Your task to perform on an android device: toggle javascript in the chrome app Image 0: 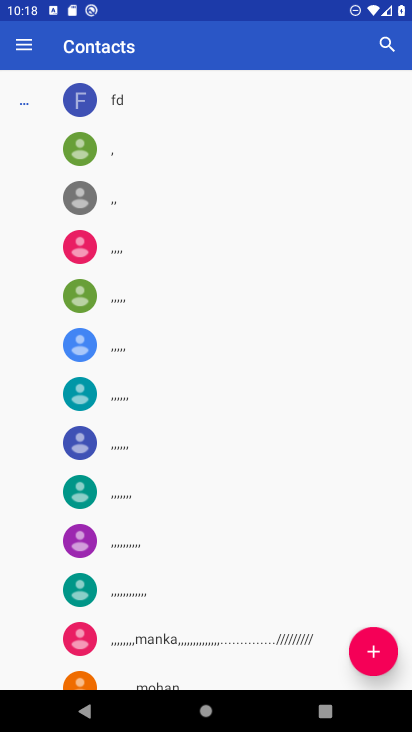
Step 0: press home button
Your task to perform on an android device: toggle javascript in the chrome app Image 1: 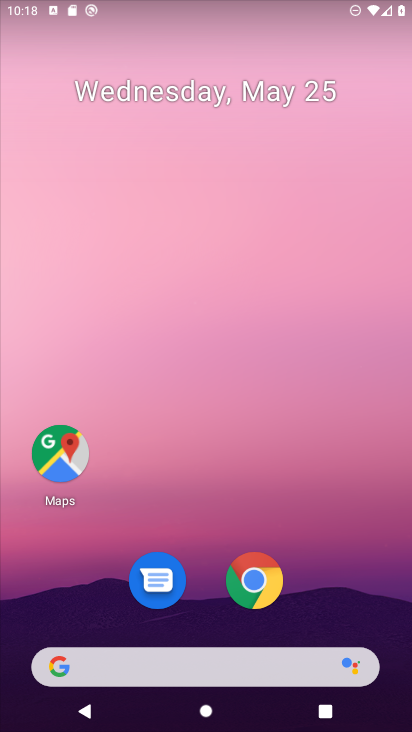
Step 1: click (251, 574)
Your task to perform on an android device: toggle javascript in the chrome app Image 2: 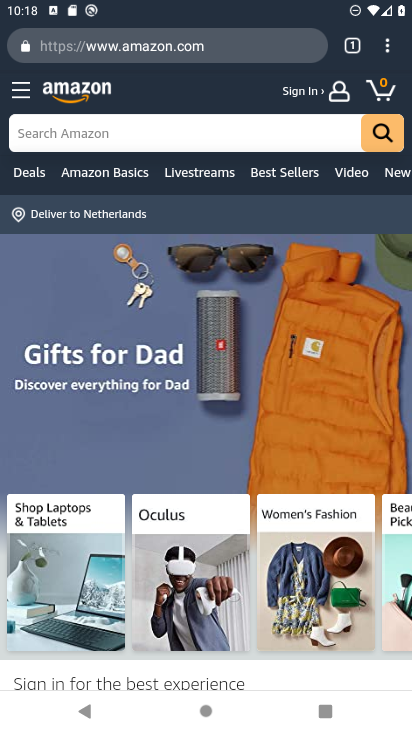
Step 2: click (386, 41)
Your task to perform on an android device: toggle javascript in the chrome app Image 3: 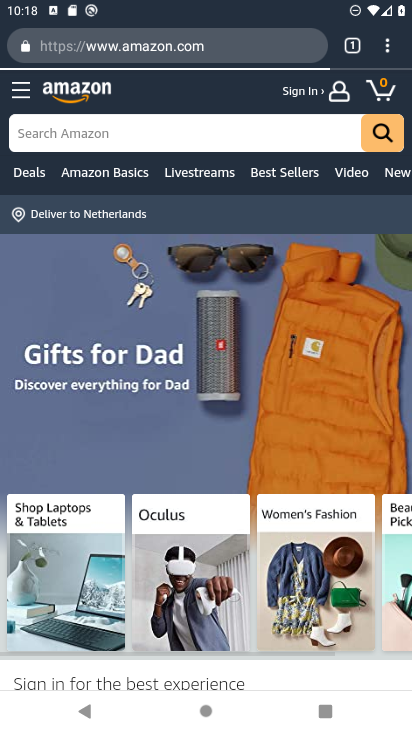
Step 3: click (380, 54)
Your task to perform on an android device: toggle javascript in the chrome app Image 4: 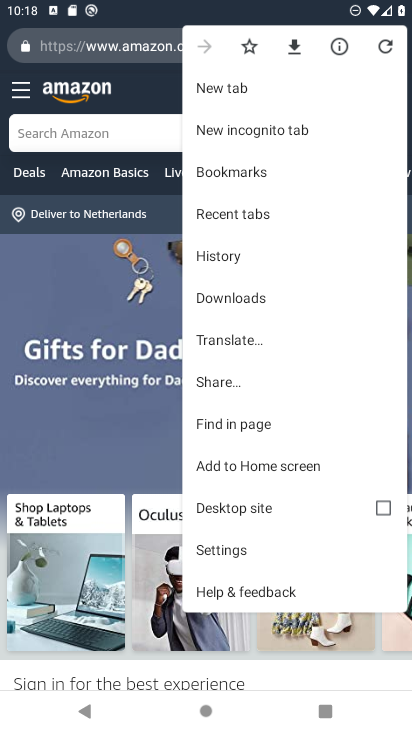
Step 4: click (237, 547)
Your task to perform on an android device: toggle javascript in the chrome app Image 5: 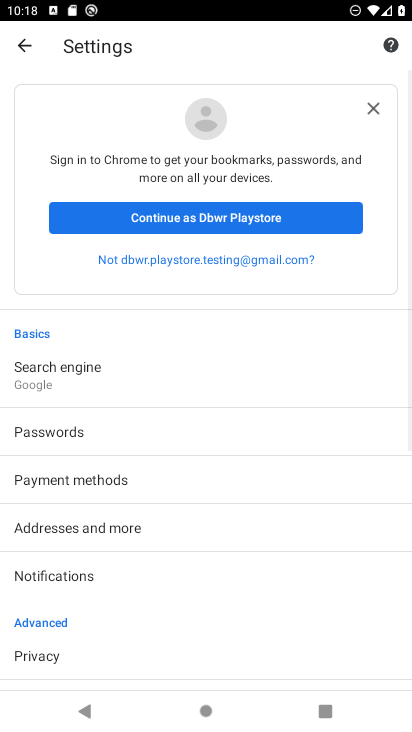
Step 5: drag from (16, 533) to (157, 232)
Your task to perform on an android device: toggle javascript in the chrome app Image 6: 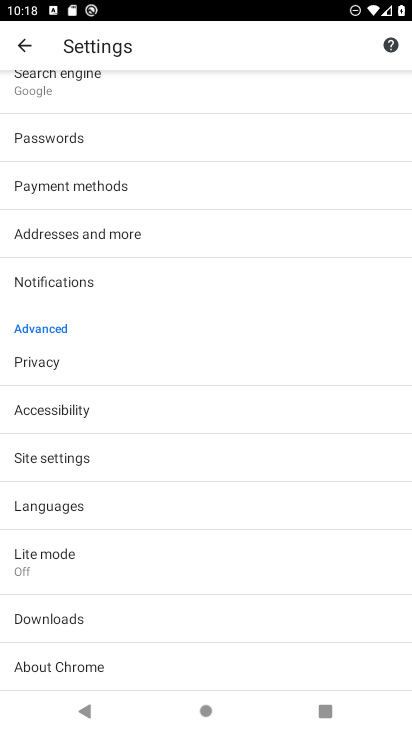
Step 6: click (63, 454)
Your task to perform on an android device: toggle javascript in the chrome app Image 7: 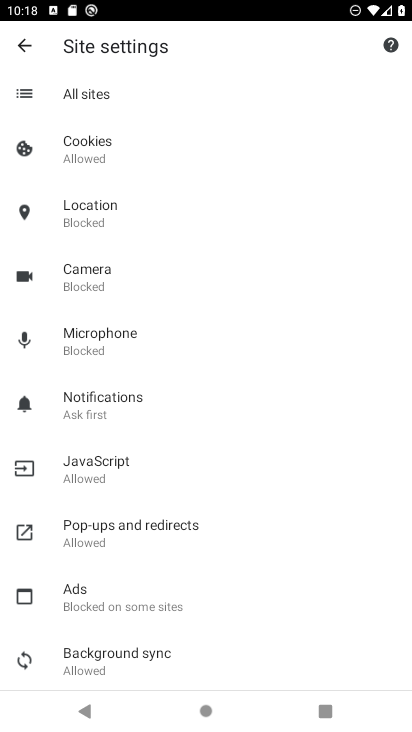
Step 7: click (114, 463)
Your task to perform on an android device: toggle javascript in the chrome app Image 8: 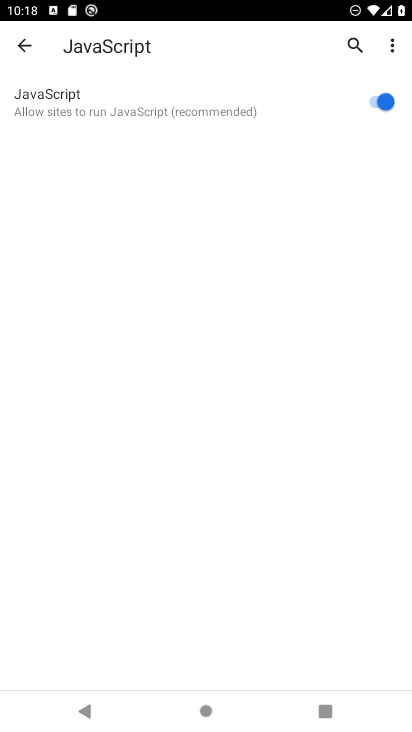
Step 8: click (388, 108)
Your task to perform on an android device: toggle javascript in the chrome app Image 9: 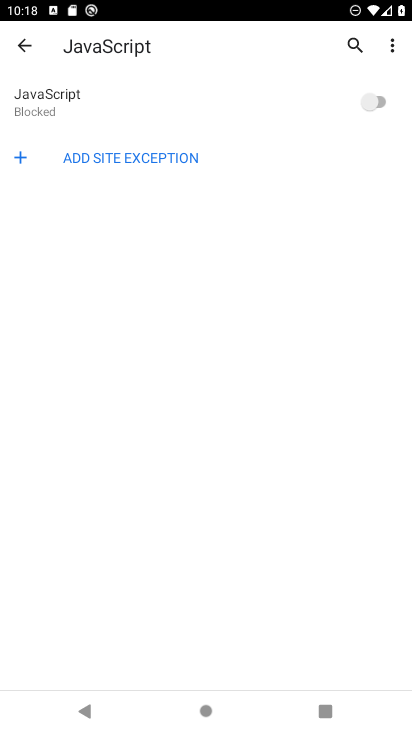
Step 9: task complete